Your task to perform on an android device: Go to Android settings Image 0: 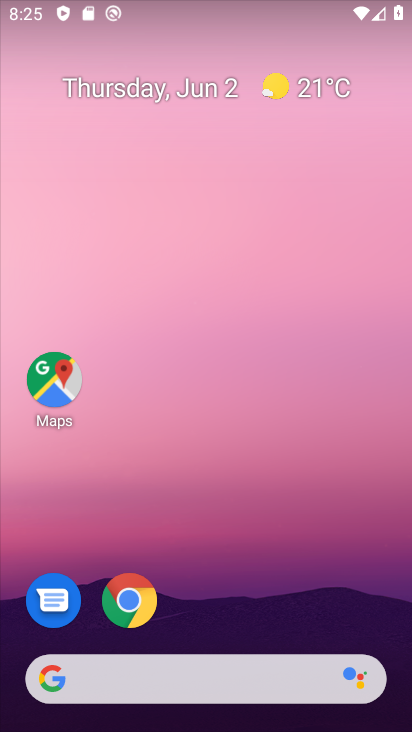
Step 0: drag from (210, 647) to (239, 243)
Your task to perform on an android device: Go to Android settings Image 1: 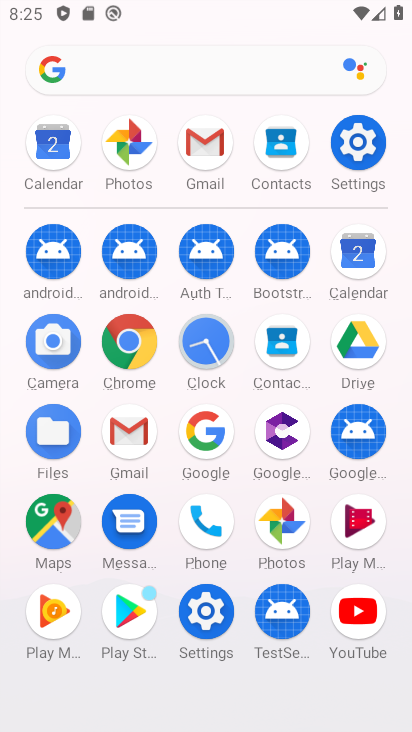
Step 1: click (359, 150)
Your task to perform on an android device: Go to Android settings Image 2: 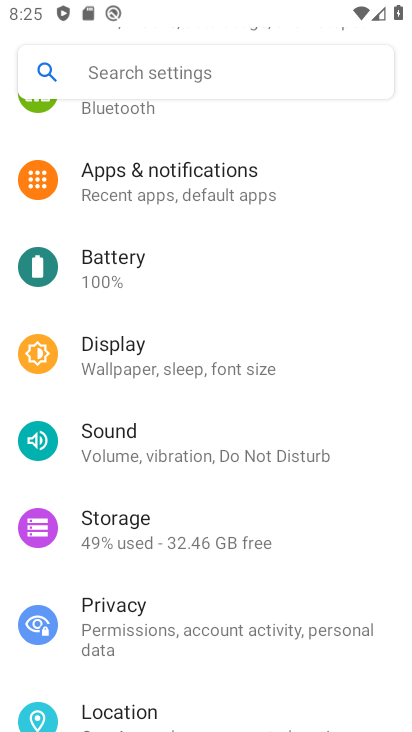
Step 2: task complete